Your task to perform on an android device: open app "HBO Max: Stream TV & Movies" (install if not already installed) Image 0: 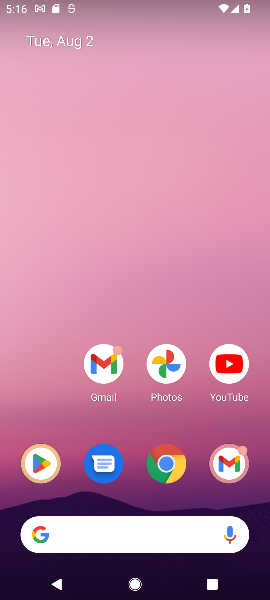
Step 0: press home button
Your task to perform on an android device: open app "HBO Max: Stream TV & Movies" (install if not already installed) Image 1: 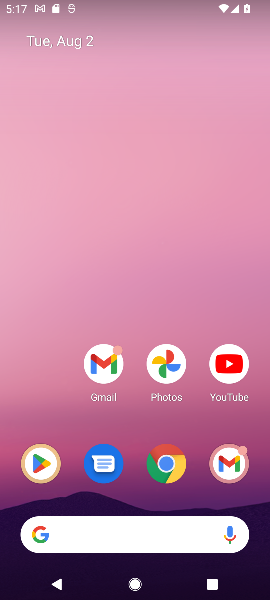
Step 1: click (34, 458)
Your task to perform on an android device: open app "HBO Max: Stream TV & Movies" (install if not already installed) Image 2: 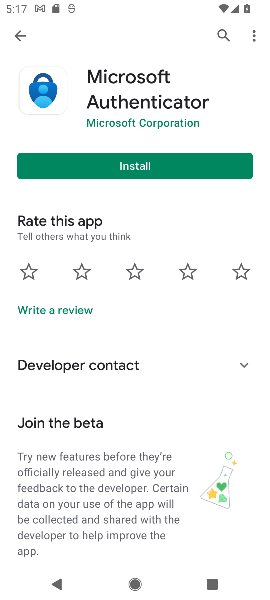
Step 2: click (222, 29)
Your task to perform on an android device: open app "HBO Max: Stream TV & Movies" (install if not already installed) Image 3: 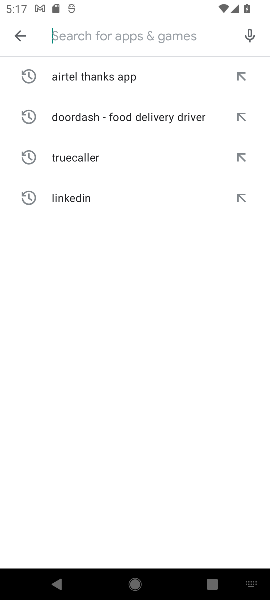
Step 3: drag from (146, 599) to (197, 594)
Your task to perform on an android device: open app "HBO Max: Stream TV & Movies" (install if not already installed) Image 4: 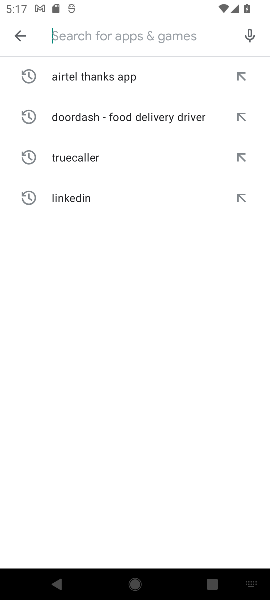
Step 4: type "HBO Max: Stream TV & Movies"
Your task to perform on an android device: open app "HBO Max: Stream TV & Movies" (install if not already installed) Image 5: 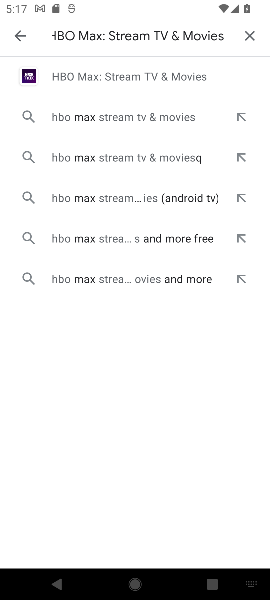
Step 5: click (120, 72)
Your task to perform on an android device: open app "HBO Max: Stream TV & Movies" (install if not already installed) Image 6: 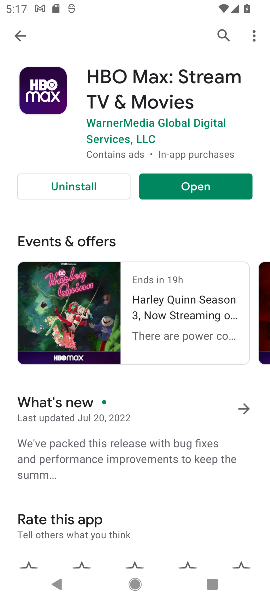
Step 6: click (187, 186)
Your task to perform on an android device: open app "HBO Max: Stream TV & Movies" (install if not already installed) Image 7: 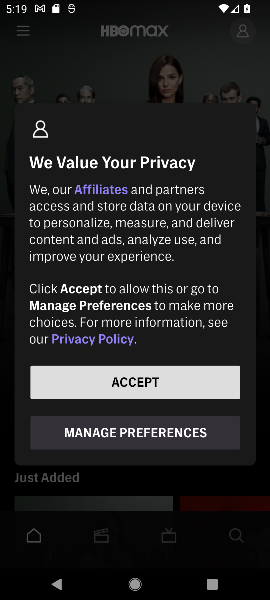
Step 7: task complete